Your task to perform on an android device: toggle wifi Image 0: 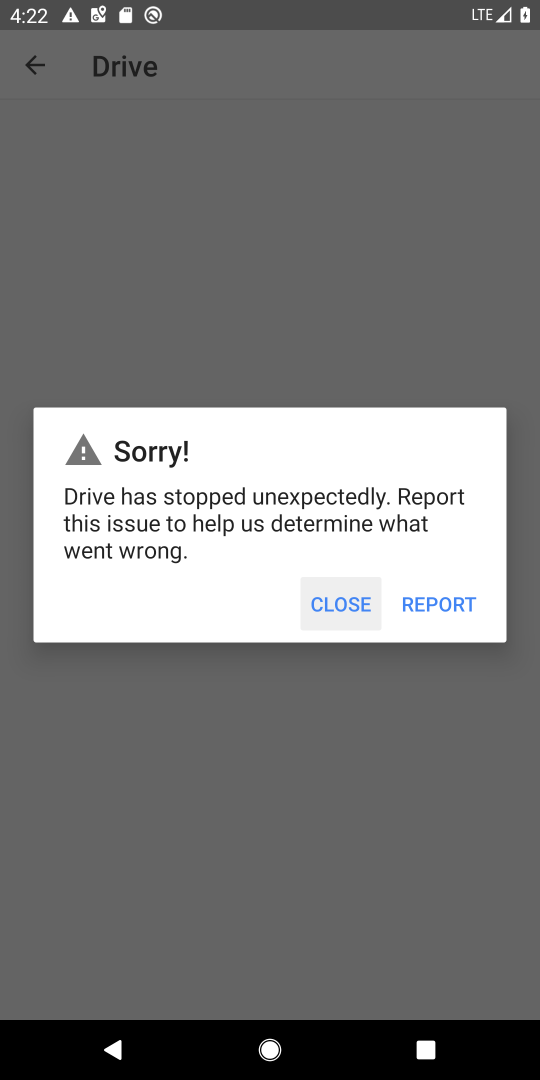
Step 0: press back button
Your task to perform on an android device: toggle wifi Image 1: 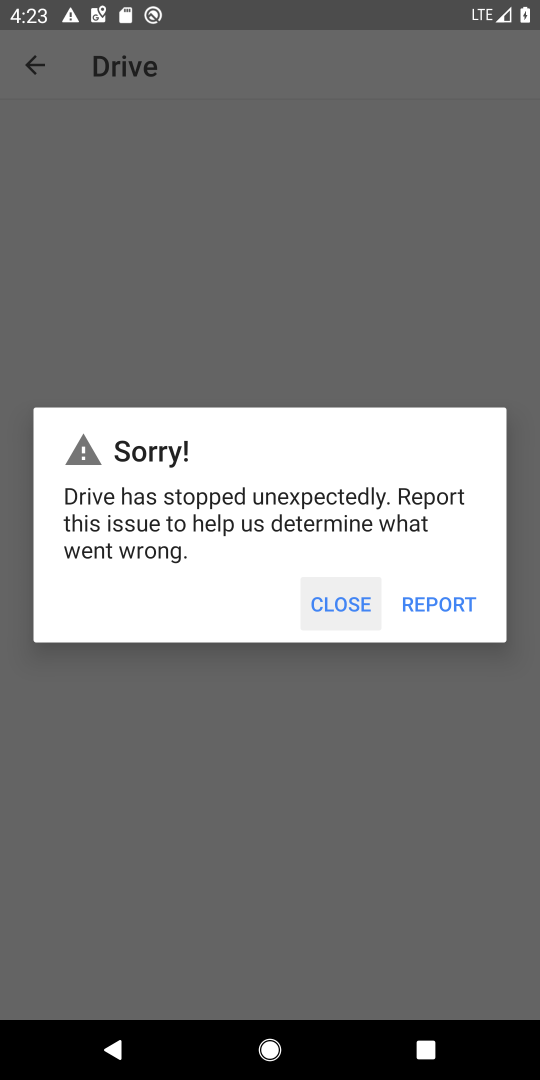
Step 1: press home button
Your task to perform on an android device: toggle wifi Image 2: 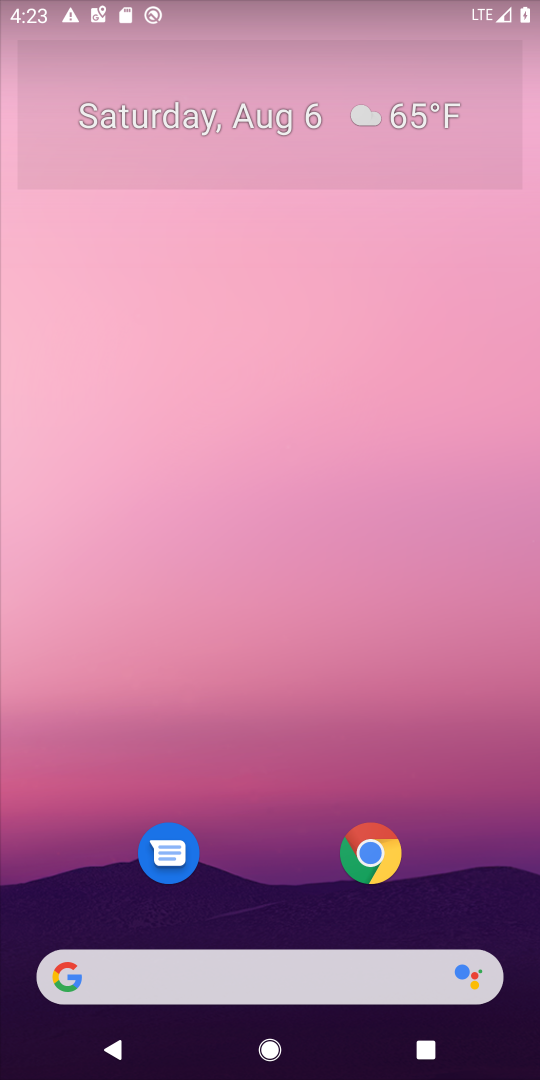
Step 2: drag from (179, 19) to (181, 884)
Your task to perform on an android device: toggle wifi Image 3: 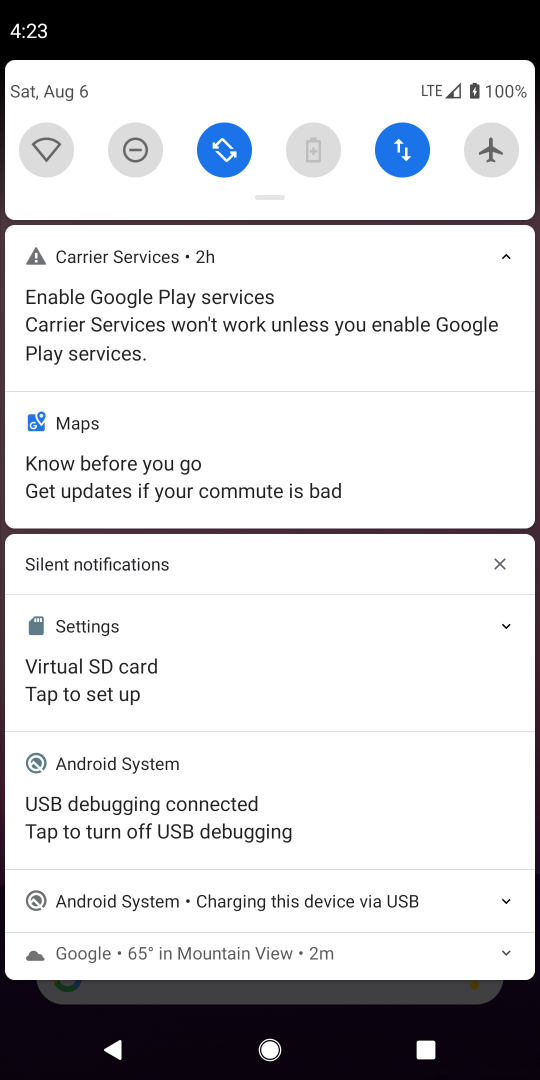
Step 3: click (39, 157)
Your task to perform on an android device: toggle wifi Image 4: 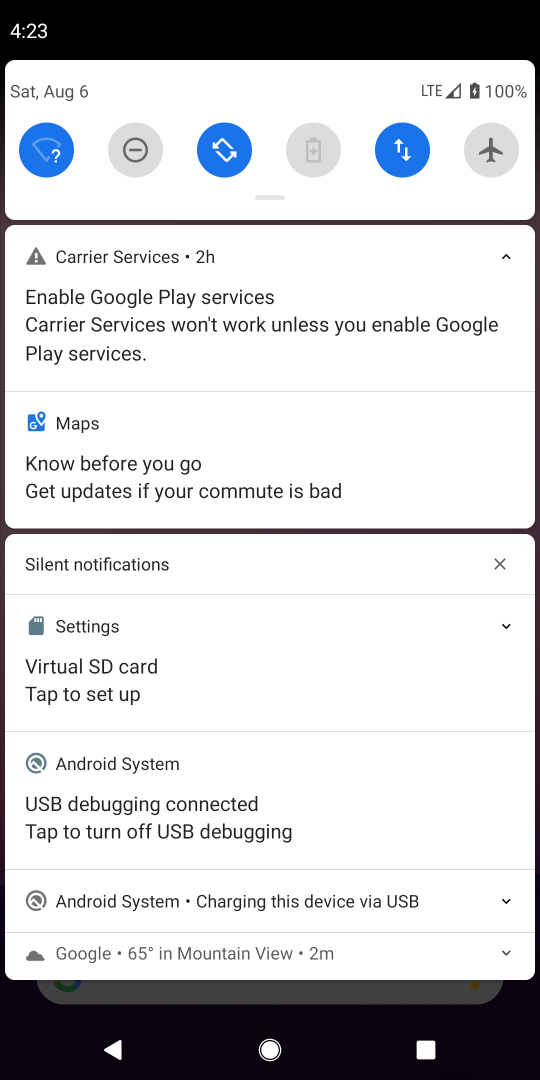
Step 4: task complete